Your task to perform on an android device: change your default location settings in chrome Image 0: 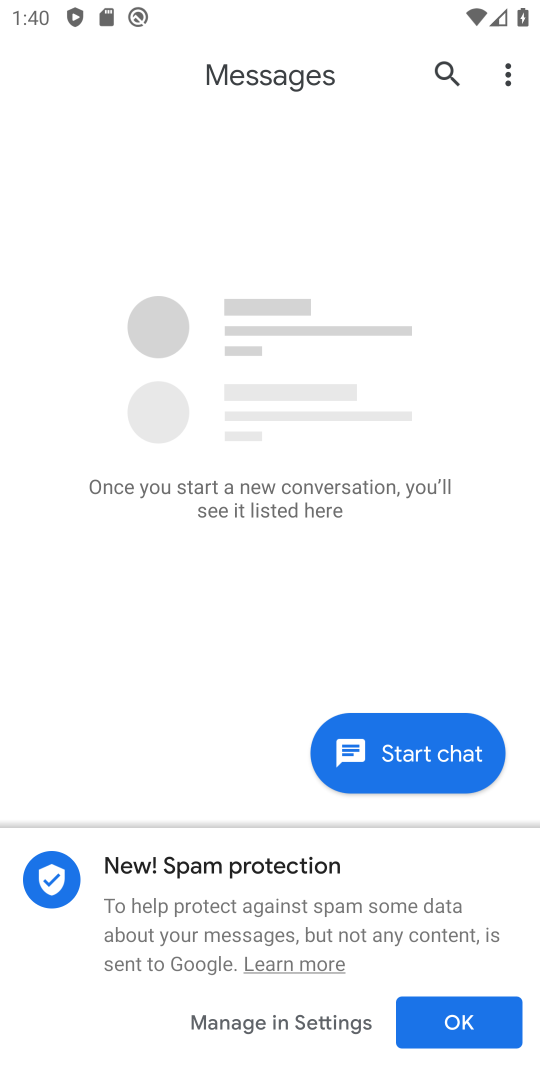
Step 0: press home button
Your task to perform on an android device: change your default location settings in chrome Image 1: 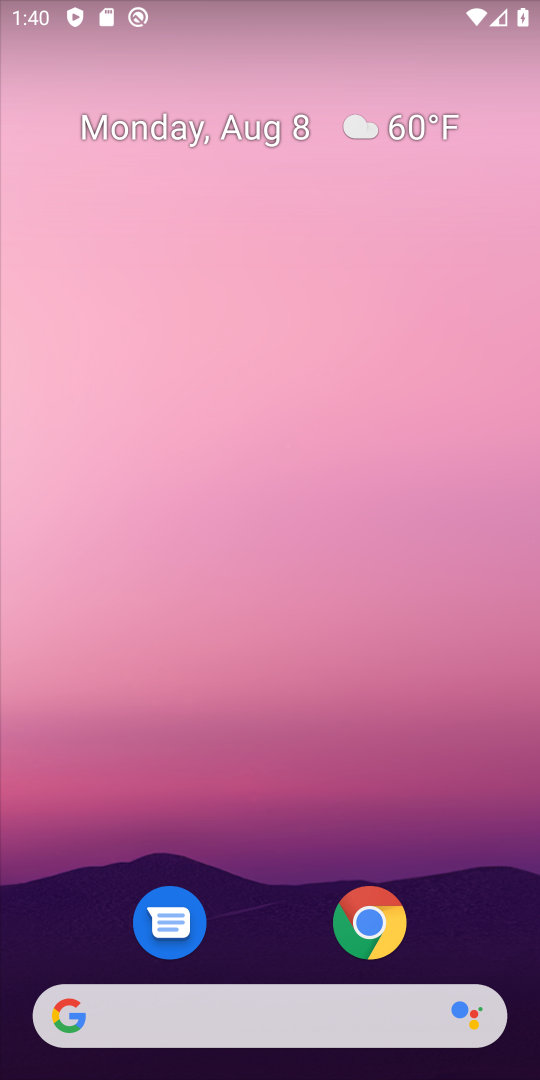
Step 1: drag from (445, 819) to (407, 77)
Your task to perform on an android device: change your default location settings in chrome Image 2: 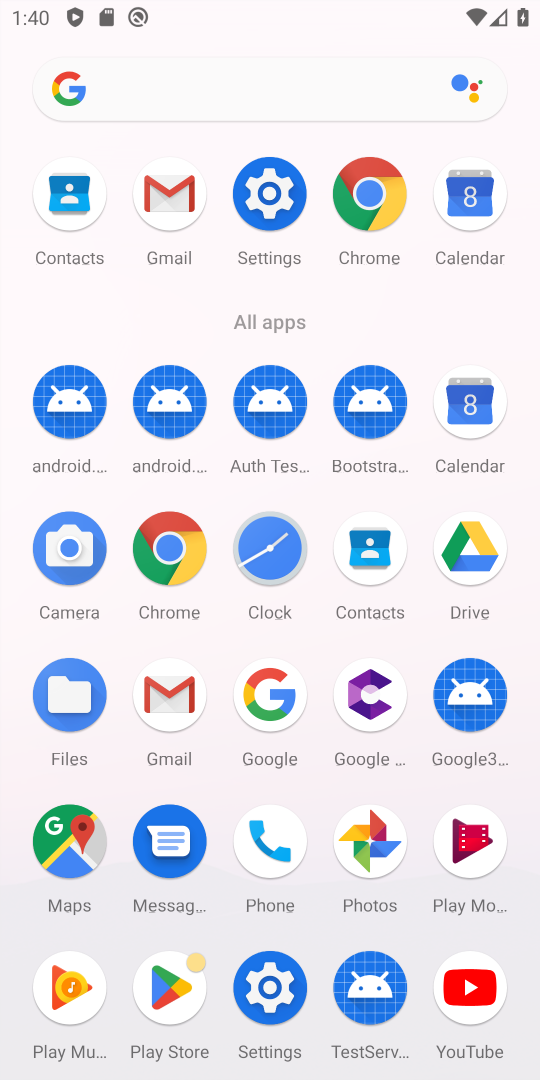
Step 2: click (178, 542)
Your task to perform on an android device: change your default location settings in chrome Image 3: 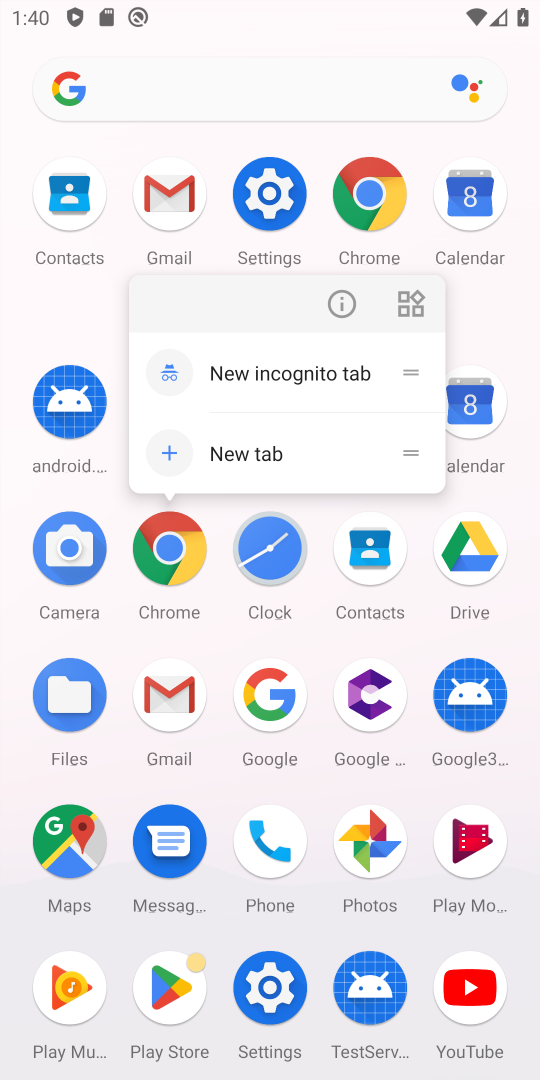
Step 3: click (170, 545)
Your task to perform on an android device: change your default location settings in chrome Image 4: 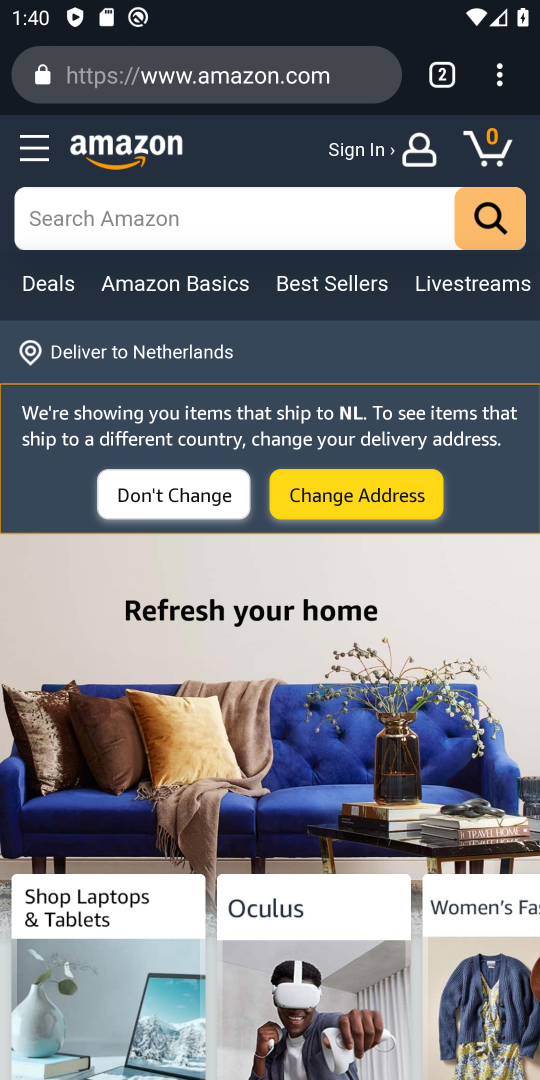
Step 4: drag from (493, 72) to (246, 986)
Your task to perform on an android device: change your default location settings in chrome Image 5: 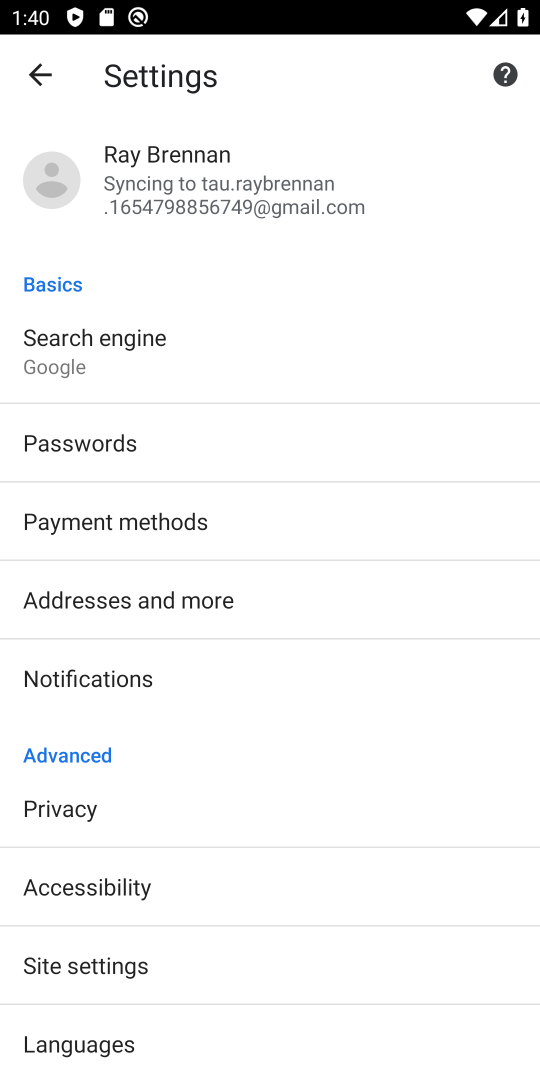
Step 5: drag from (277, 809) to (293, 556)
Your task to perform on an android device: change your default location settings in chrome Image 6: 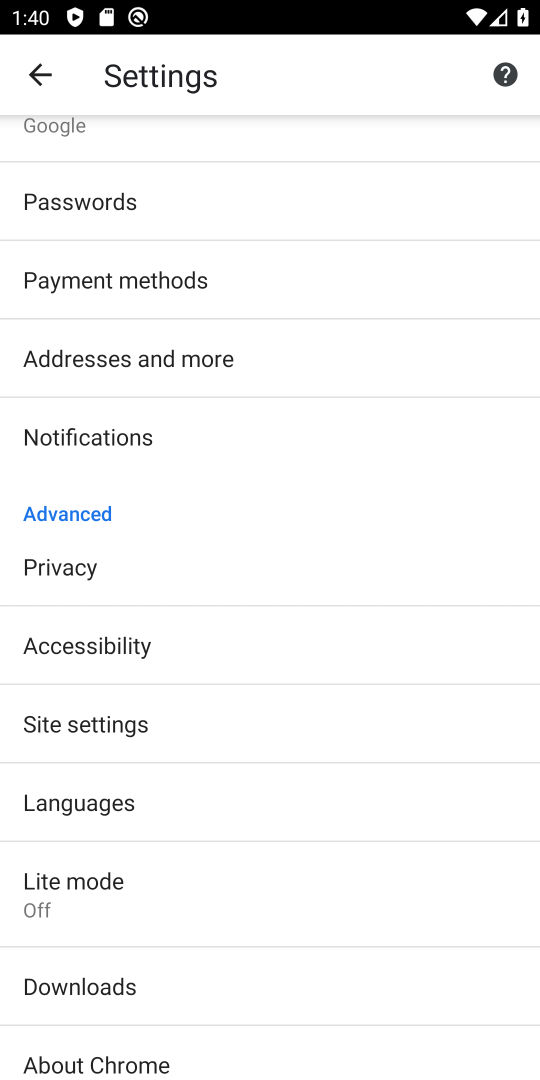
Step 6: click (91, 727)
Your task to perform on an android device: change your default location settings in chrome Image 7: 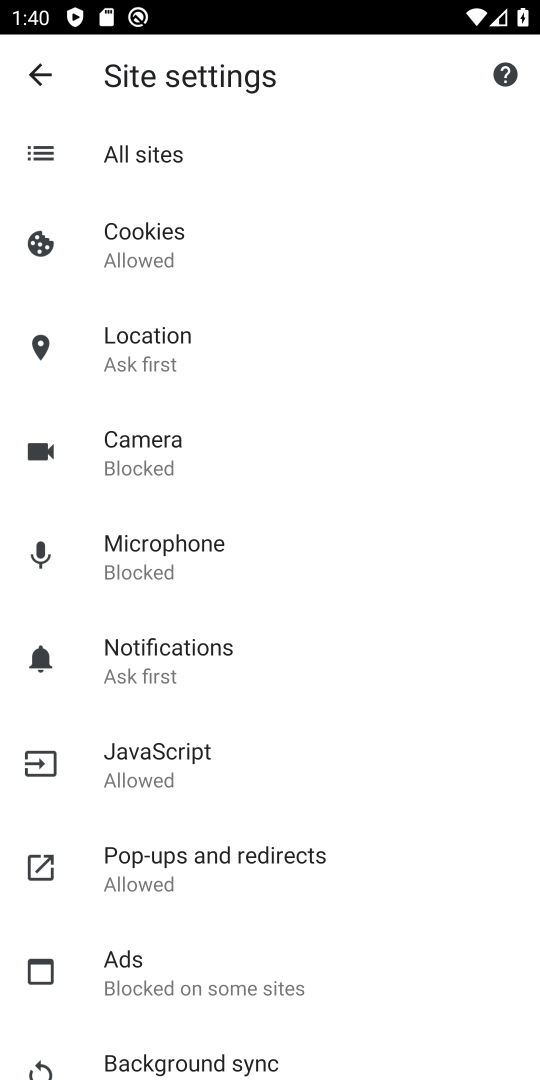
Step 7: drag from (429, 820) to (429, 296)
Your task to perform on an android device: change your default location settings in chrome Image 8: 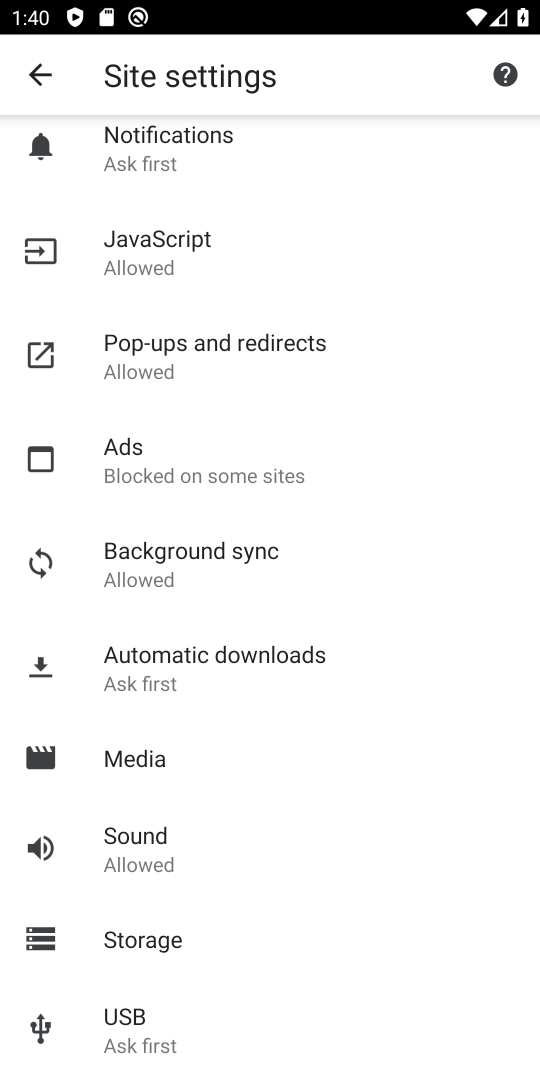
Step 8: drag from (431, 271) to (275, 786)
Your task to perform on an android device: change your default location settings in chrome Image 9: 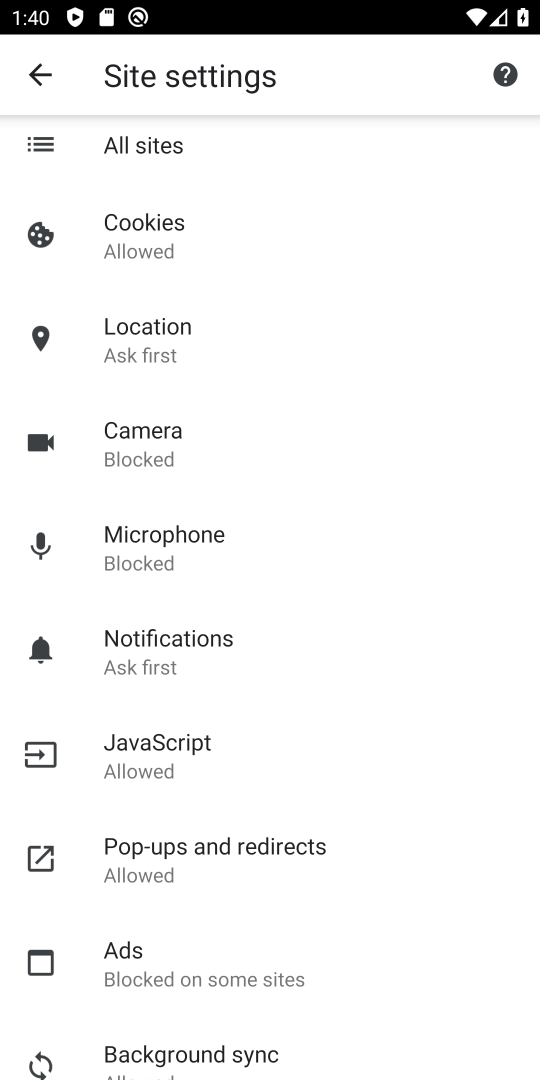
Step 9: click (196, 325)
Your task to perform on an android device: change your default location settings in chrome Image 10: 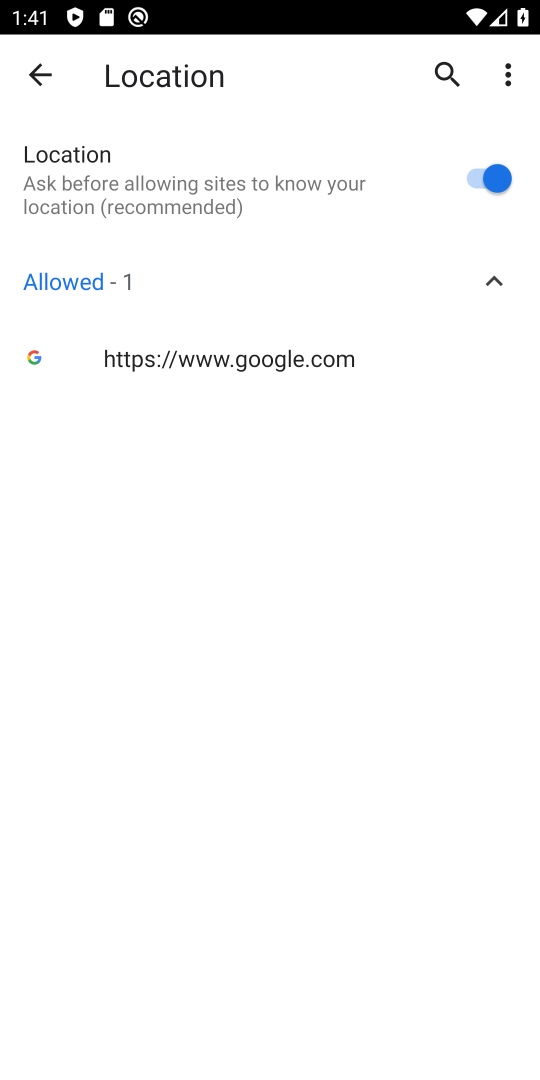
Step 10: click (481, 168)
Your task to perform on an android device: change your default location settings in chrome Image 11: 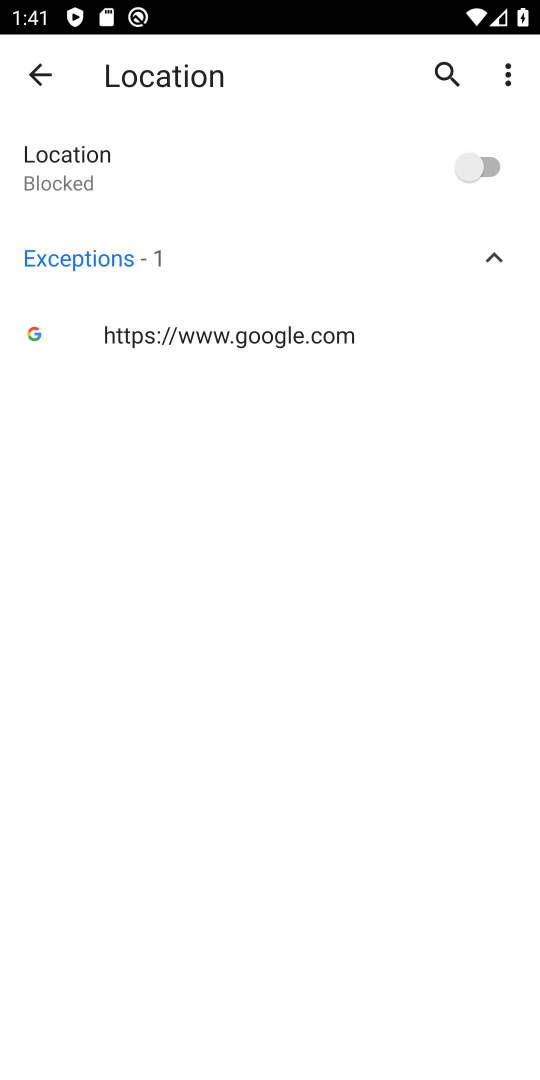
Step 11: task complete